Your task to perform on an android device: search for console tables on article.com Image 0: 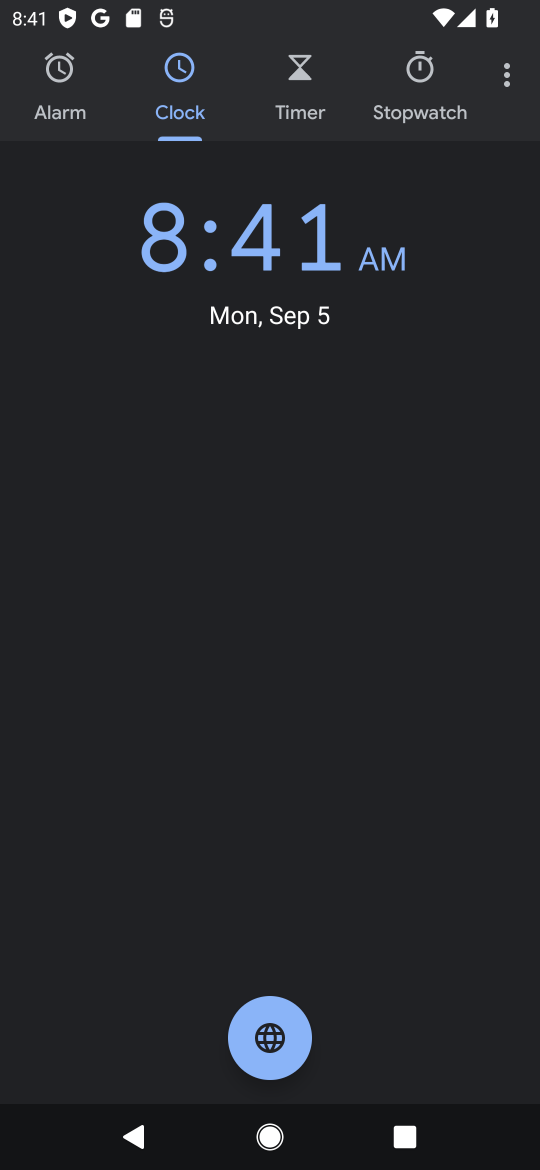
Step 0: press home button
Your task to perform on an android device: search for console tables on article.com Image 1: 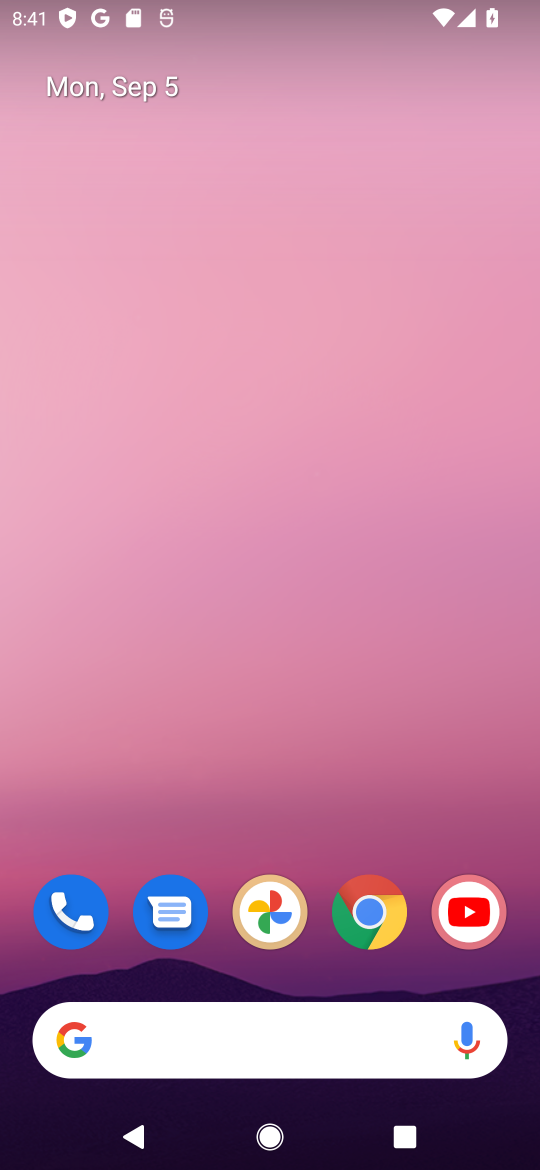
Step 1: click (356, 916)
Your task to perform on an android device: search for console tables on article.com Image 2: 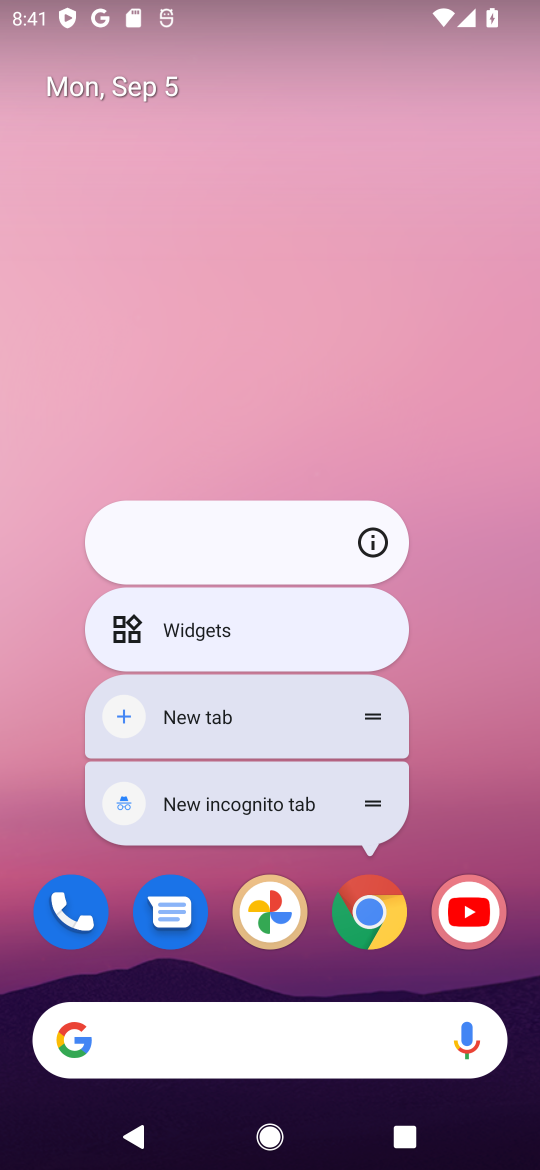
Step 2: click (370, 932)
Your task to perform on an android device: search for console tables on article.com Image 3: 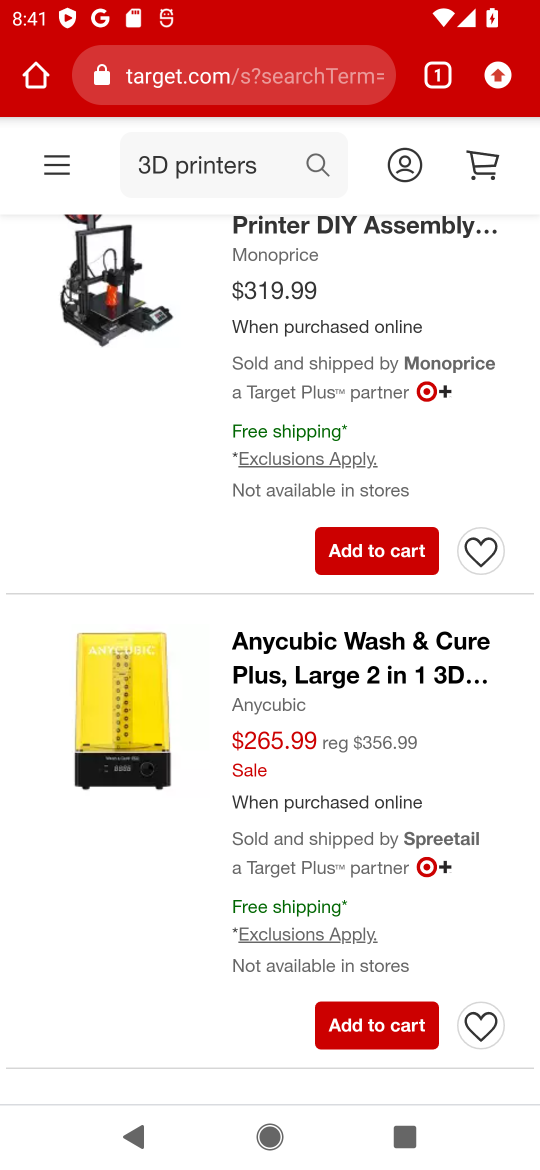
Step 3: click (285, 87)
Your task to perform on an android device: search for console tables on article.com Image 4: 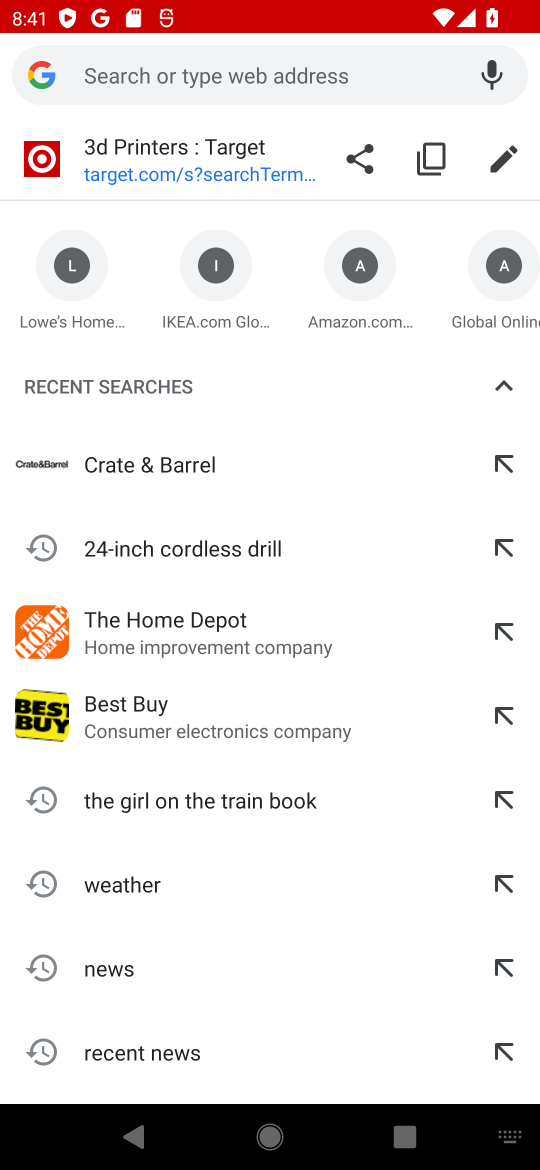
Step 4: type "article.com"
Your task to perform on an android device: search for console tables on article.com Image 5: 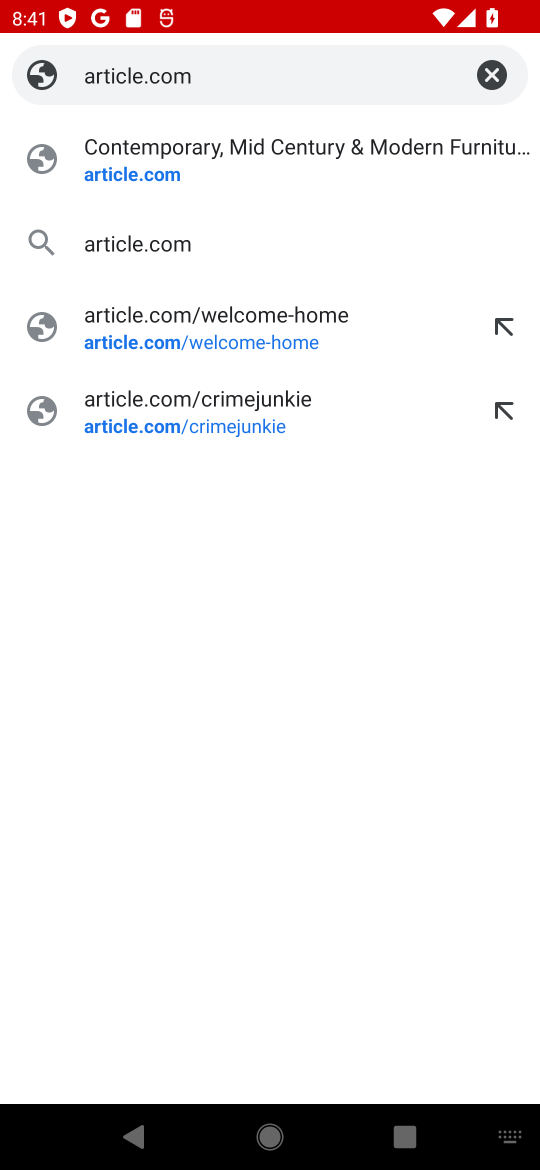
Step 5: press enter
Your task to perform on an android device: search for console tables on article.com Image 6: 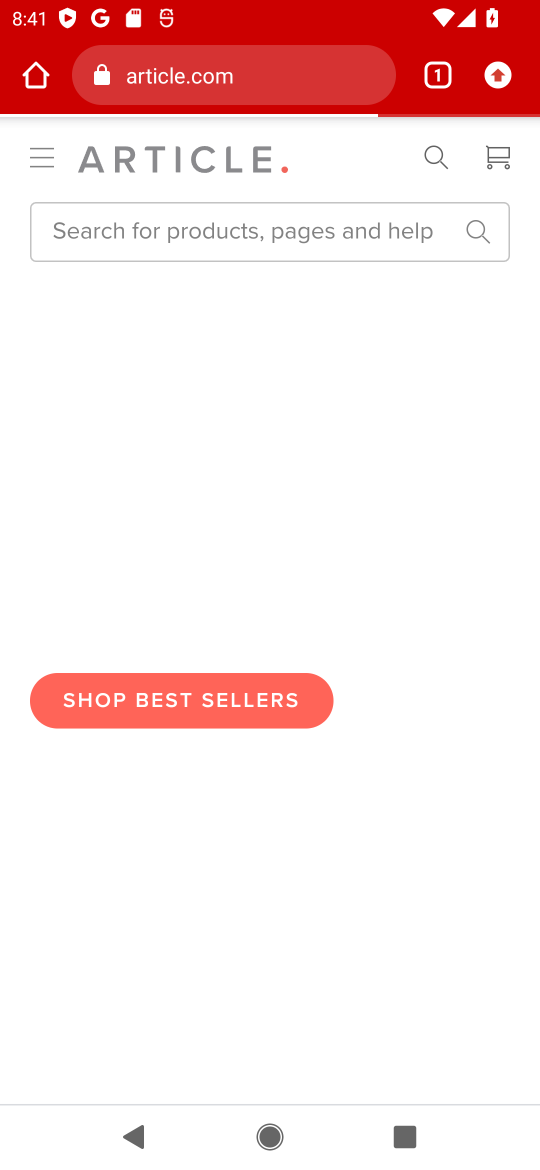
Step 6: click (220, 228)
Your task to perform on an android device: search for console tables on article.com Image 7: 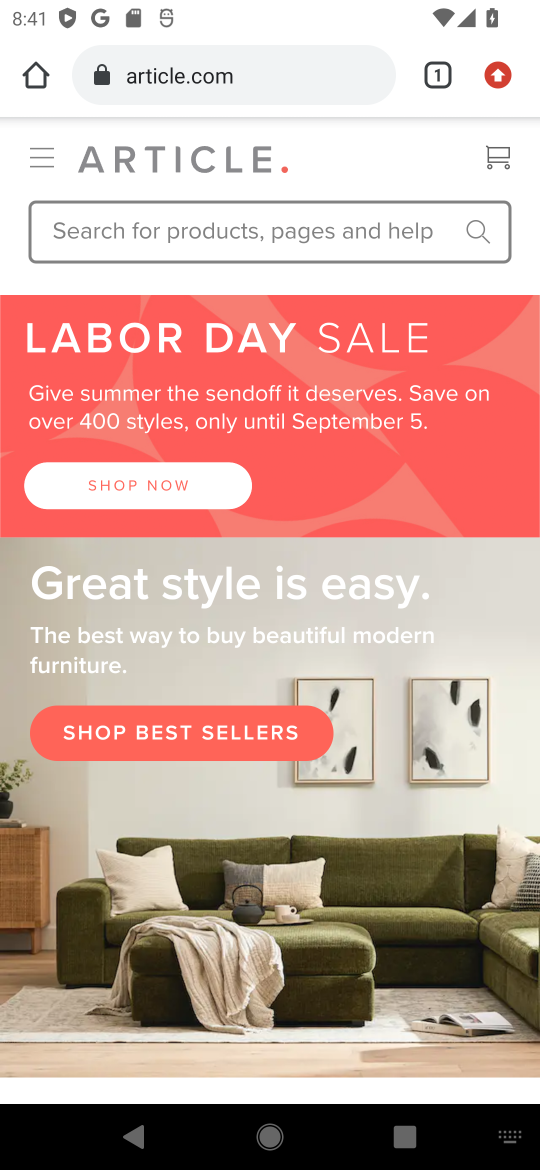
Step 7: type "console tables"
Your task to perform on an android device: search for console tables on article.com Image 8: 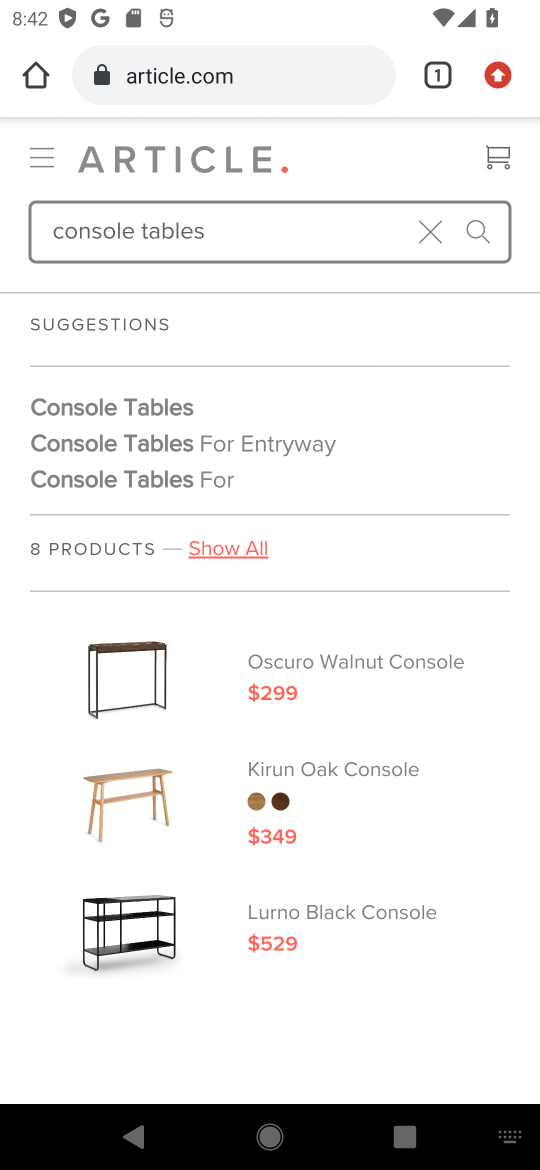
Step 8: press enter
Your task to perform on an android device: search for console tables on article.com Image 9: 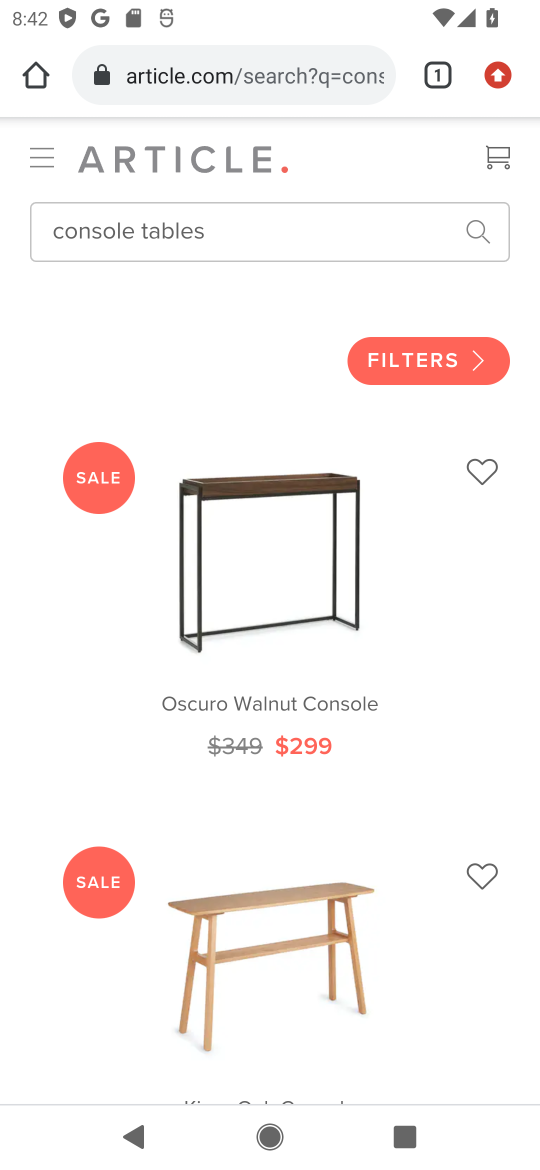
Step 9: task complete